Your task to perform on an android device: create a new album in the google photos Image 0: 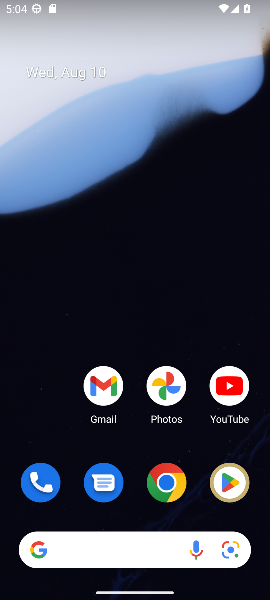
Step 0: click (167, 388)
Your task to perform on an android device: create a new album in the google photos Image 1: 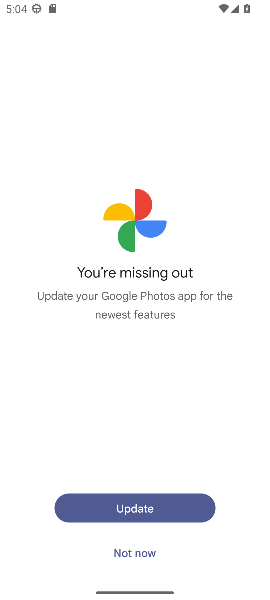
Step 1: click (124, 553)
Your task to perform on an android device: create a new album in the google photos Image 2: 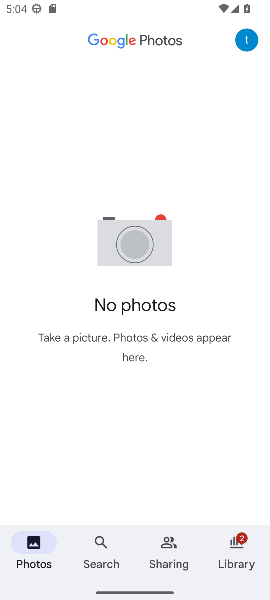
Step 2: click (236, 534)
Your task to perform on an android device: create a new album in the google photos Image 3: 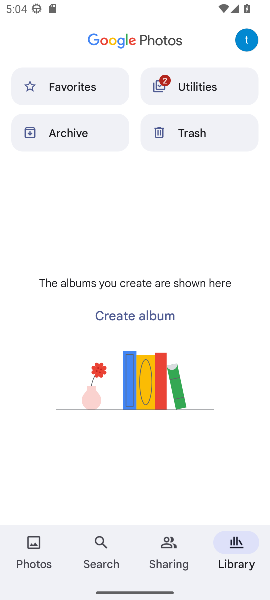
Step 3: click (169, 314)
Your task to perform on an android device: create a new album in the google photos Image 4: 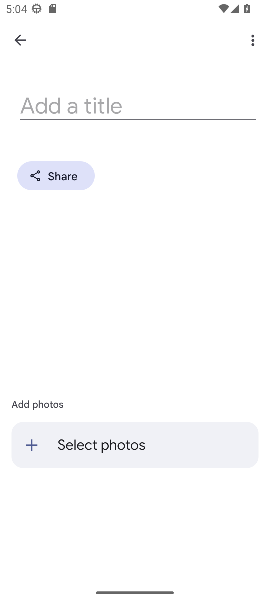
Step 4: click (162, 97)
Your task to perform on an android device: create a new album in the google photos Image 5: 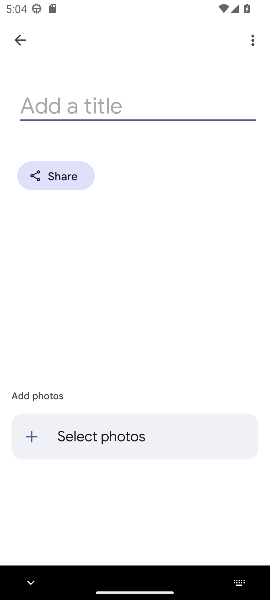
Step 5: type "Prayagraj, Bharat"
Your task to perform on an android device: create a new album in the google photos Image 6: 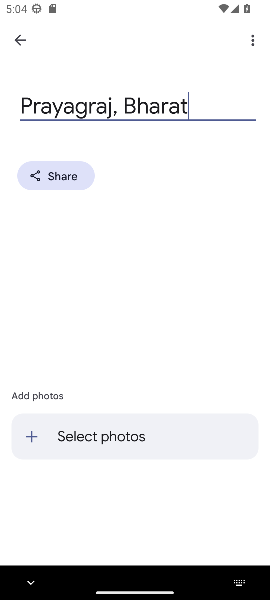
Step 6: click (33, 436)
Your task to perform on an android device: create a new album in the google photos Image 7: 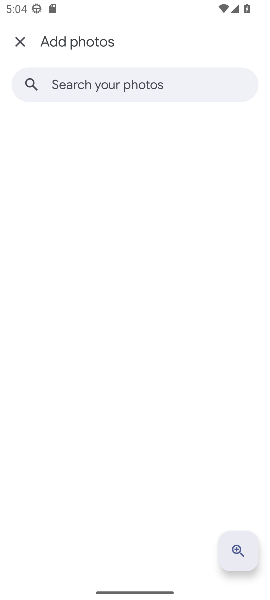
Step 7: task complete